Your task to perform on an android device: Do I have any events this weekend? Image 0: 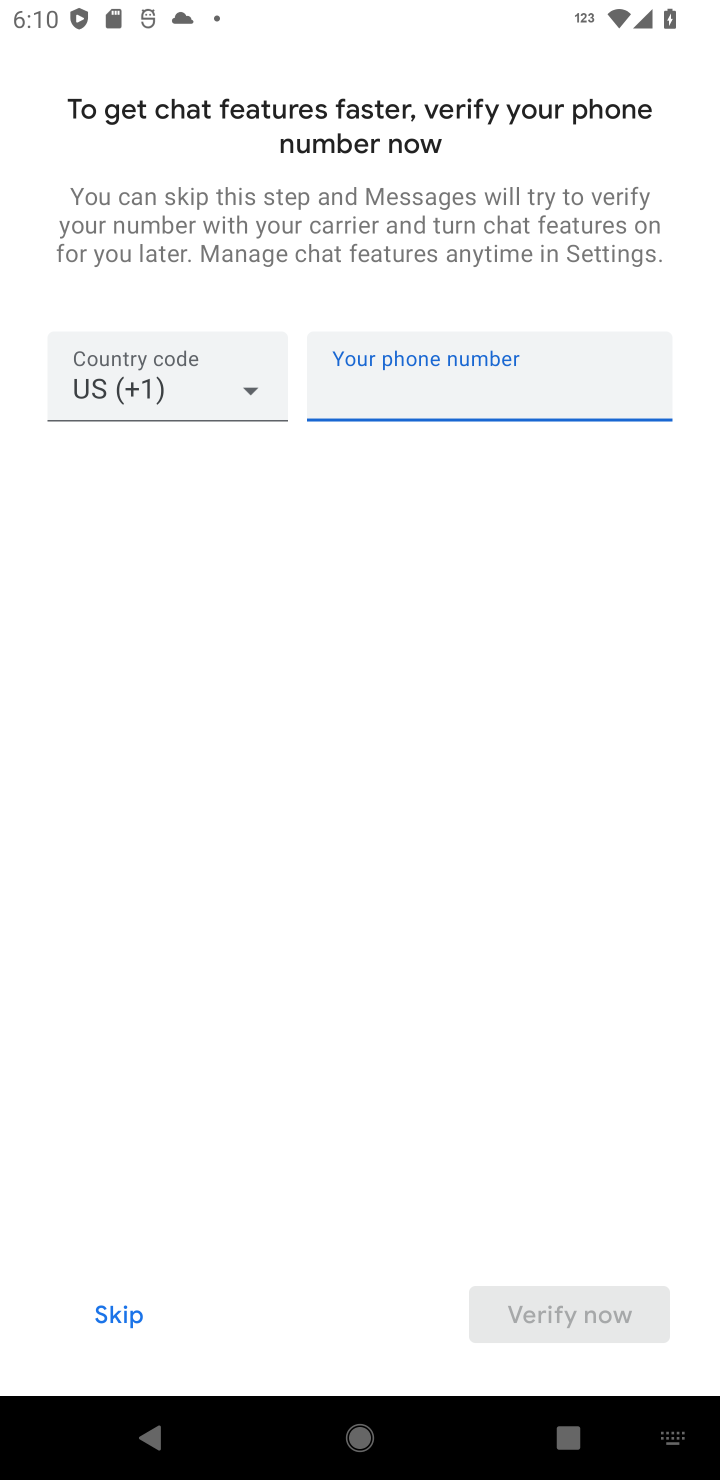
Step 0: press home button
Your task to perform on an android device: Do I have any events this weekend? Image 1: 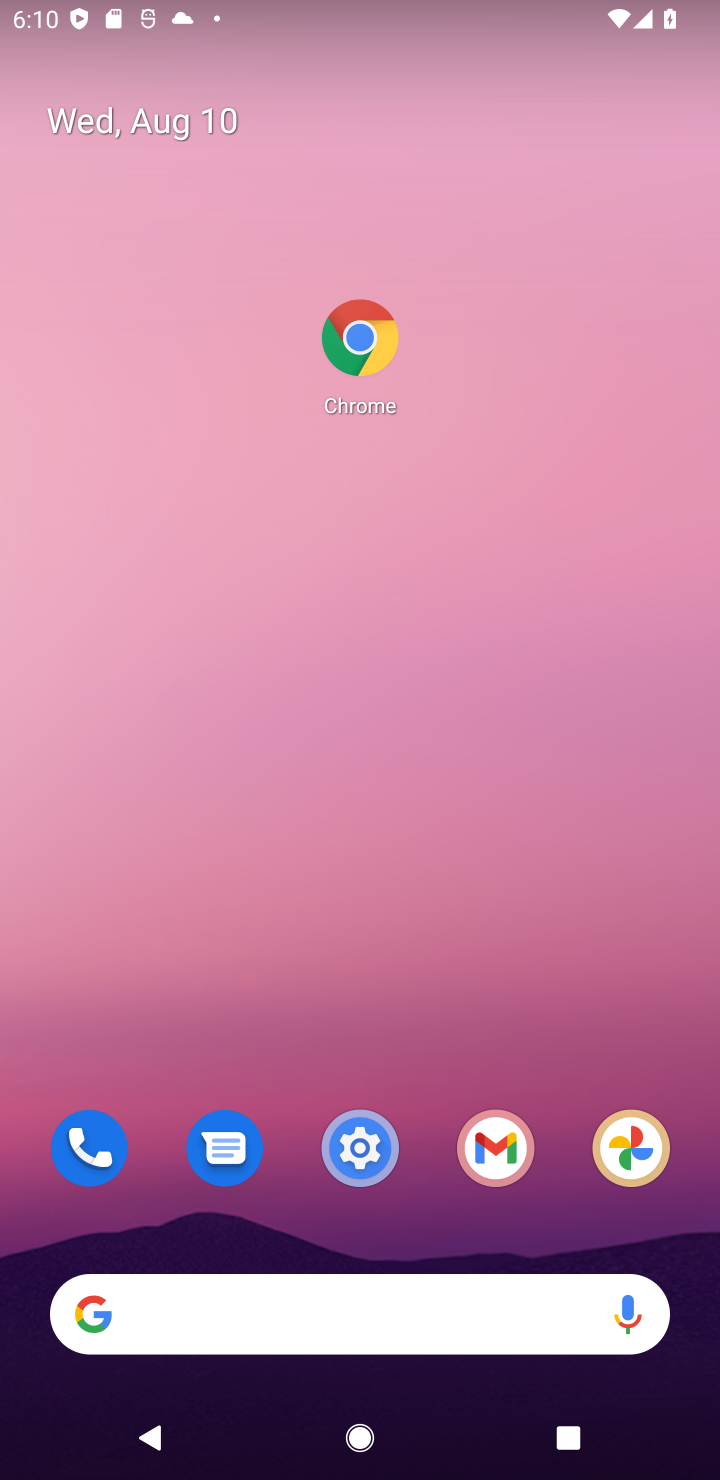
Step 1: click (76, 114)
Your task to perform on an android device: Do I have any events this weekend? Image 2: 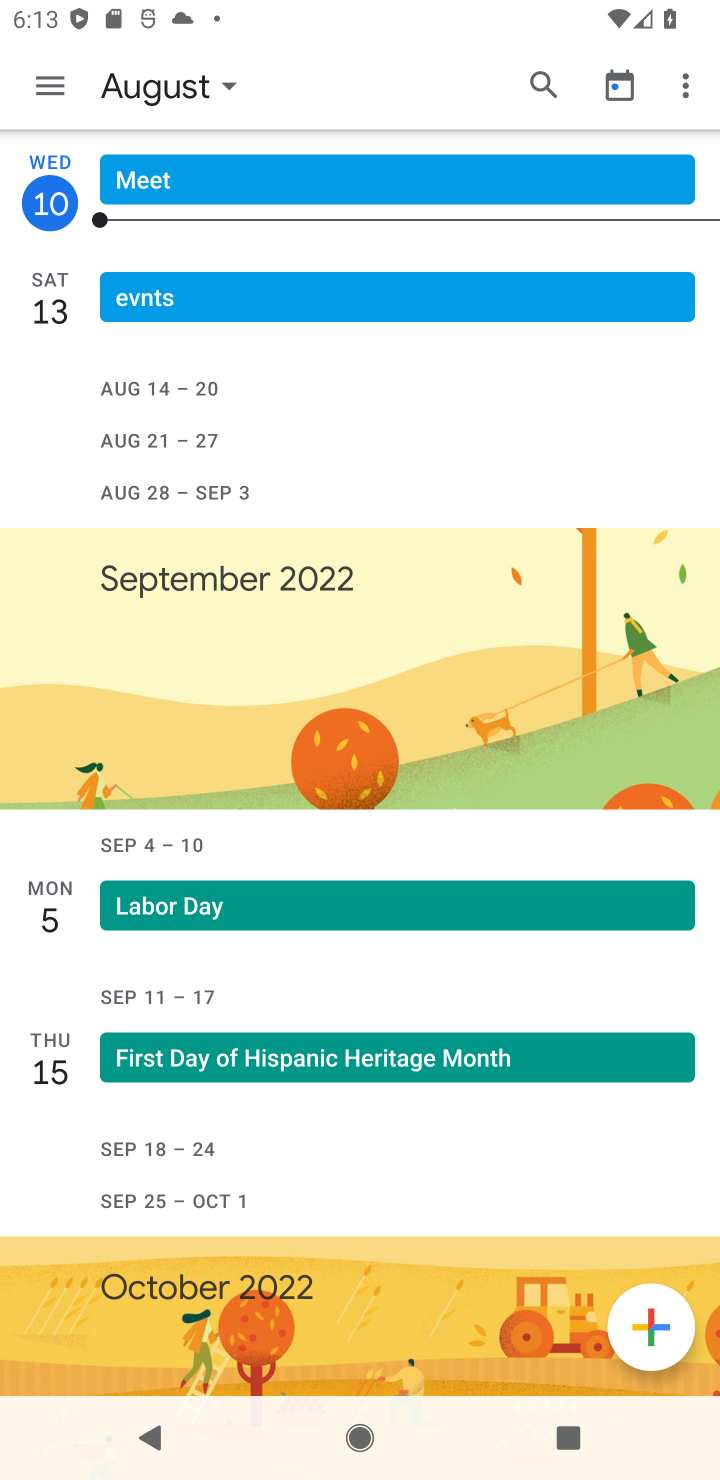
Step 2: click (55, 83)
Your task to perform on an android device: Do I have any events this weekend? Image 3: 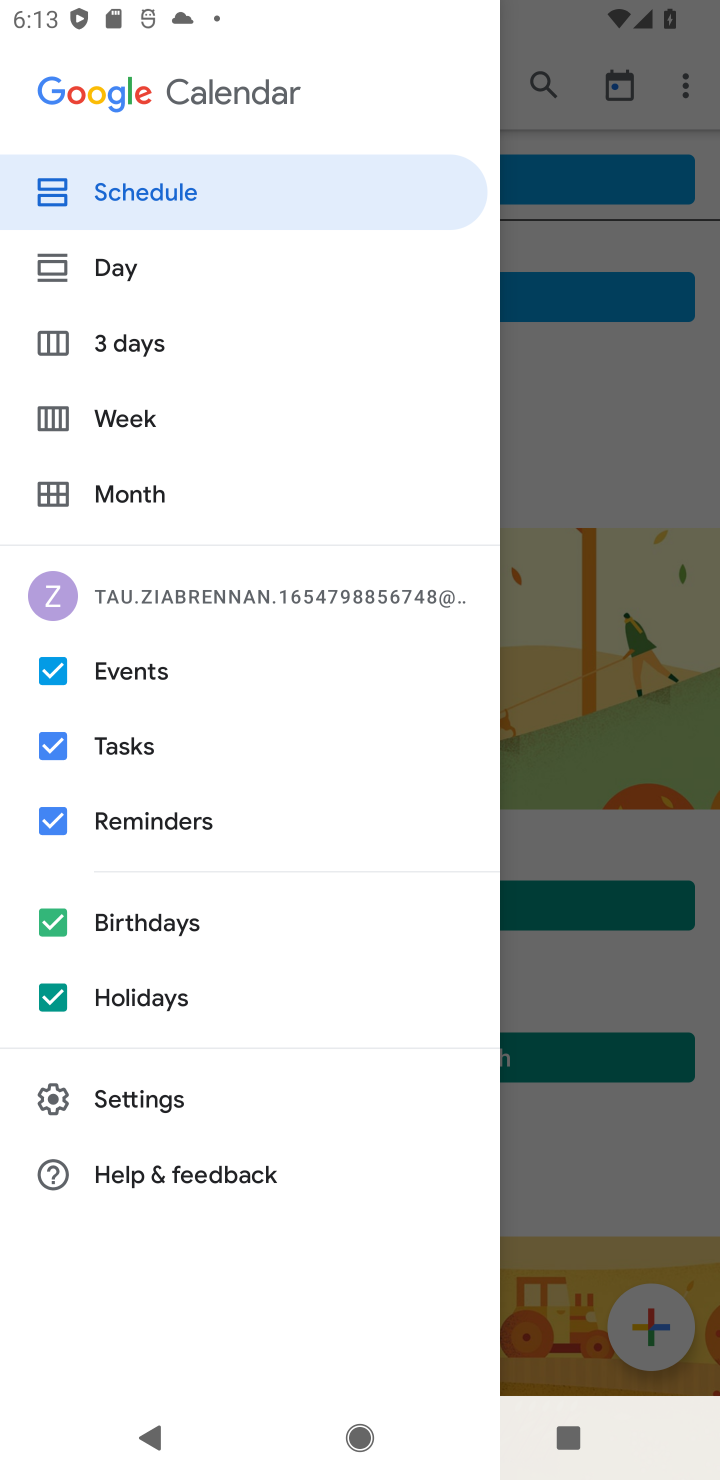
Step 3: click (94, 408)
Your task to perform on an android device: Do I have any events this weekend? Image 4: 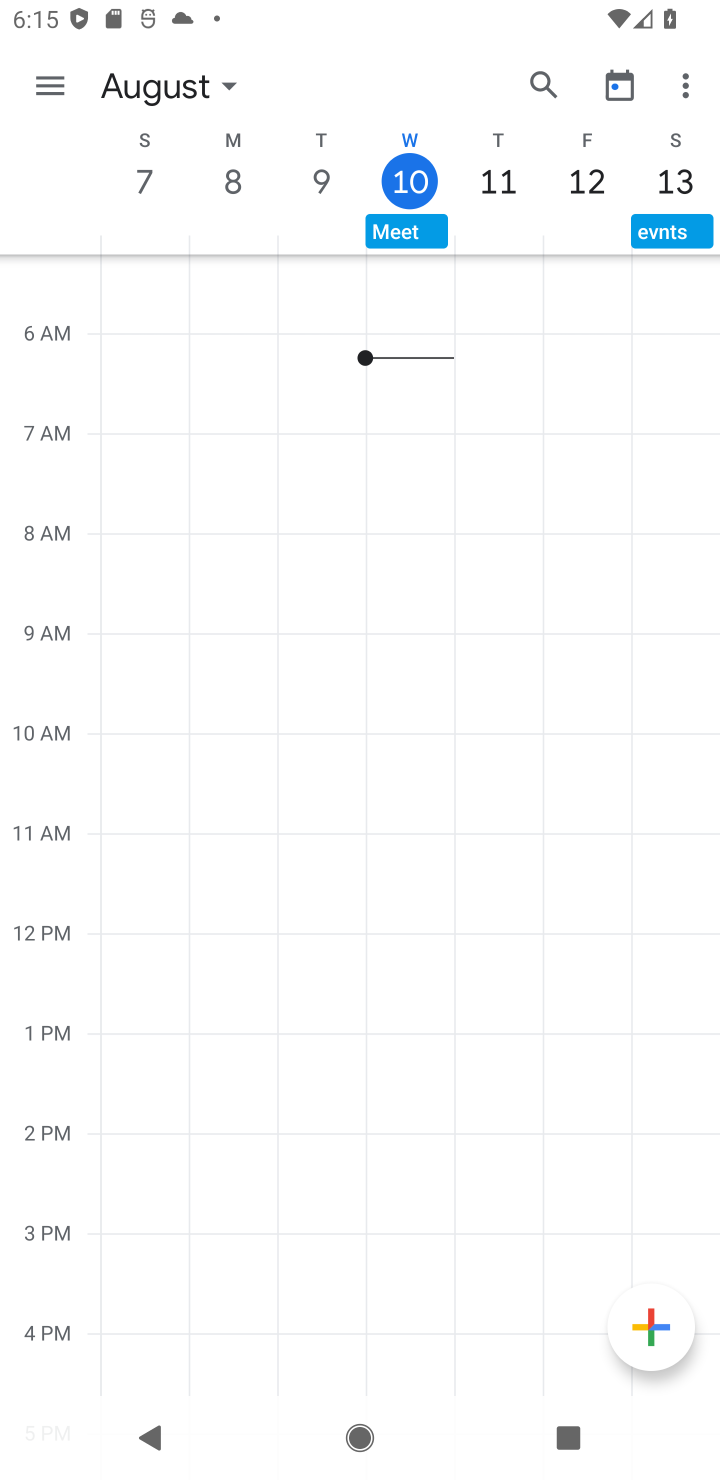
Step 4: task complete